Your task to perform on an android device: clear history in the chrome app Image 0: 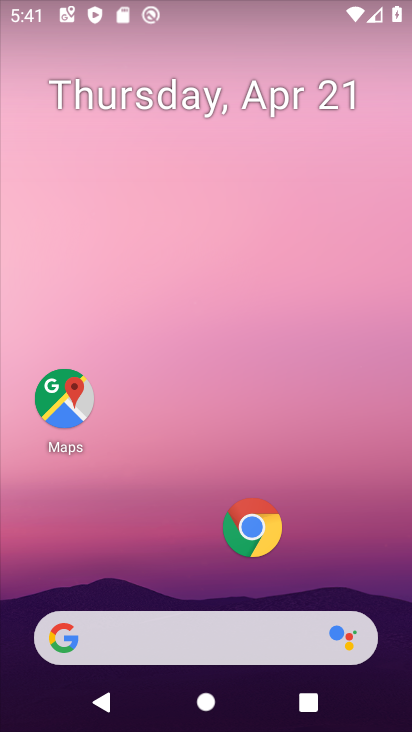
Step 0: click (256, 522)
Your task to perform on an android device: clear history in the chrome app Image 1: 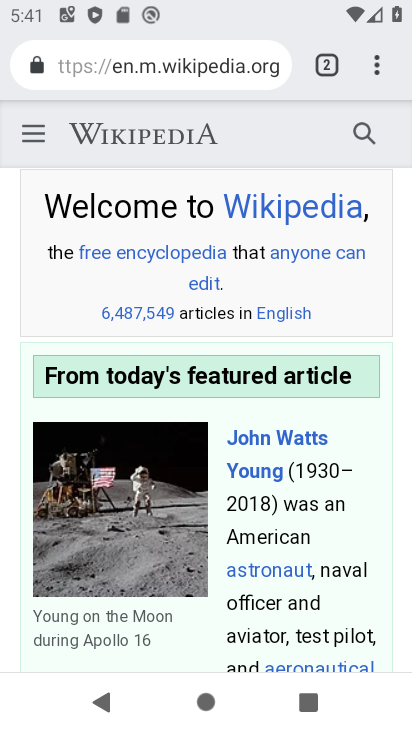
Step 1: drag from (376, 59) to (152, 437)
Your task to perform on an android device: clear history in the chrome app Image 2: 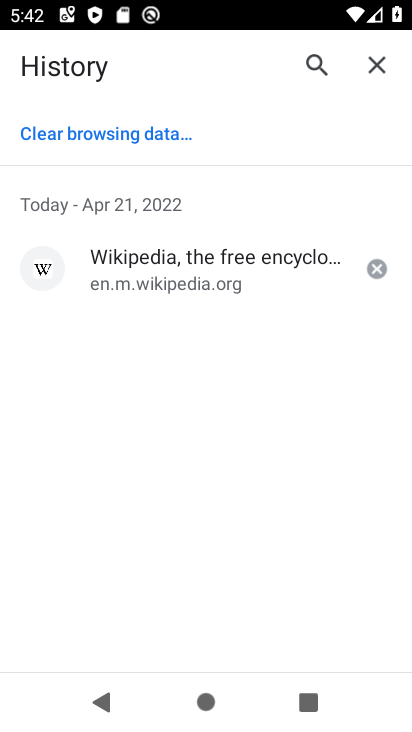
Step 2: click (99, 125)
Your task to perform on an android device: clear history in the chrome app Image 3: 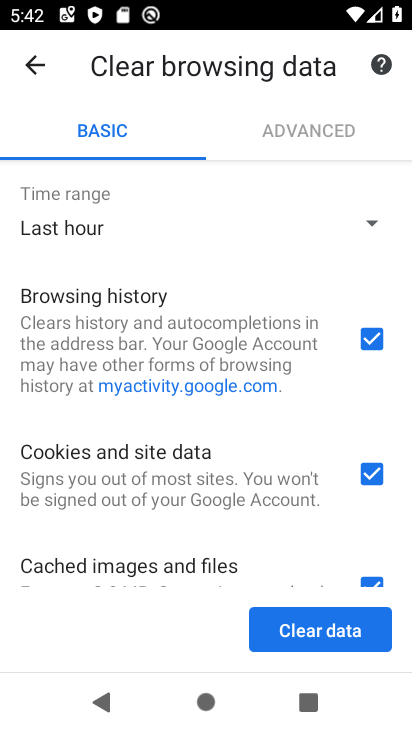
Step 3: click (306, 625)
Your task to perform on an android device: clear history in the chrome app Image 4: 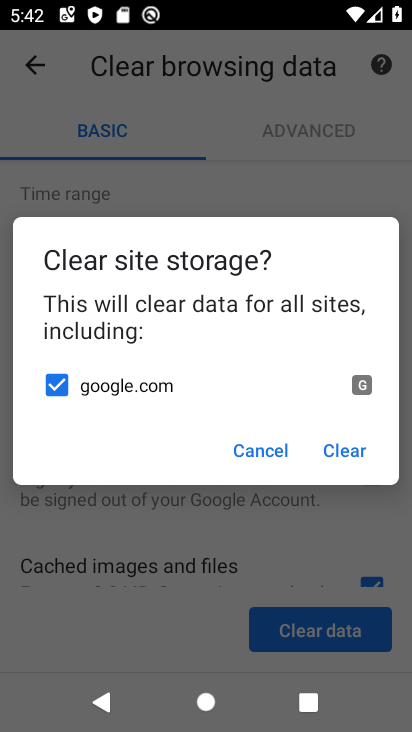
Step 4: click (356, 447)
Your task to perform on an android device: clear history in the chrome app Image 5: 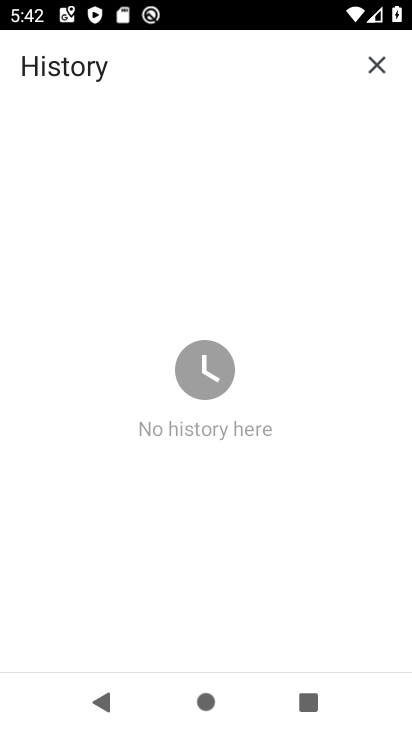
Step 5: task complete